Your task to perform on an android device: turn pop-ups on in chrome Image 0: 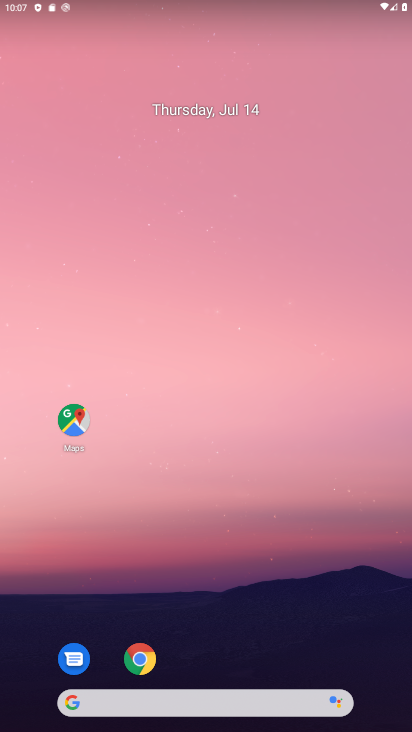
Step 0: drag from (207, 632) to (210, 187)
Your task to perform on an android device: turn pop-ups on in chrome Image 1: 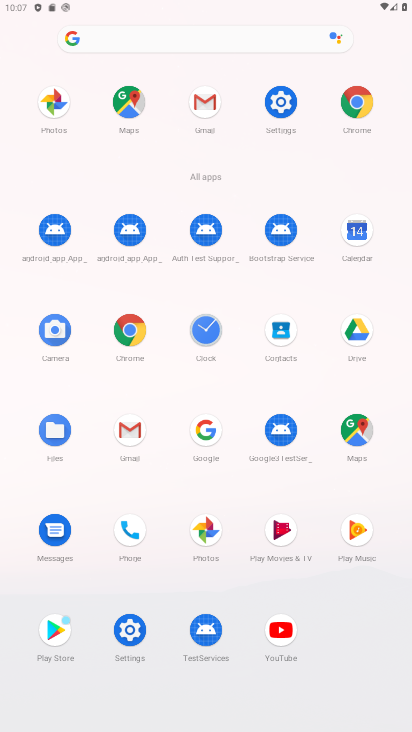
Step 1: click (128, 319)
Your task to perform on an android device: turn pop-ups on in chrome Image 2: 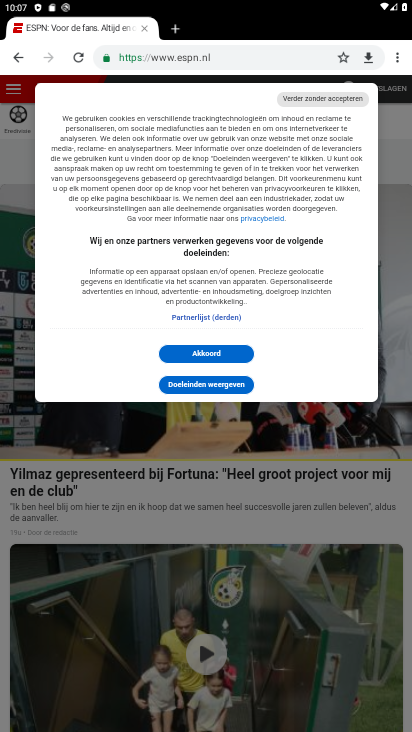
Step 2: click (394, 48)
Your task to perform on an android device: turn pop-ups on in chrome Image 3: 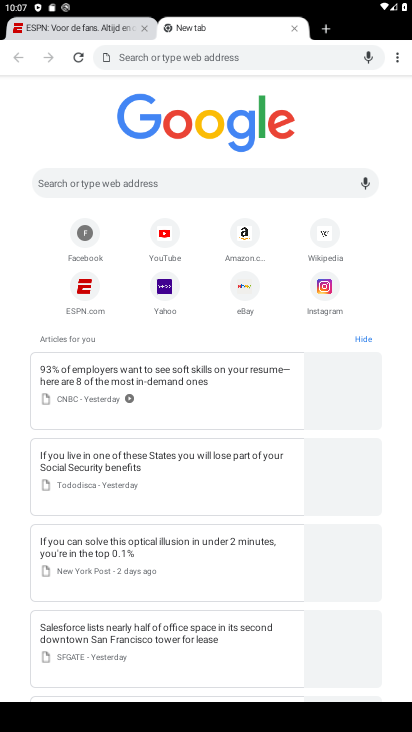
Step 3: click (401, 53)
Your task to perform on an android device: turn pop-ups on in chrome Image 4: 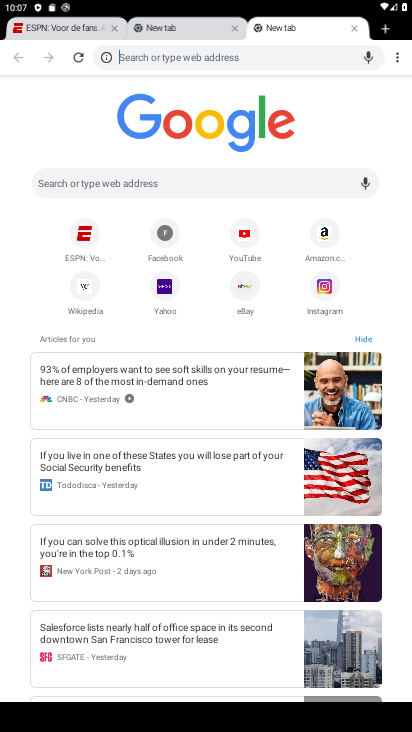
Step 4: click (395, 53)
Your task to perform on an android device: turn pop-ups on in chrome Image 5: 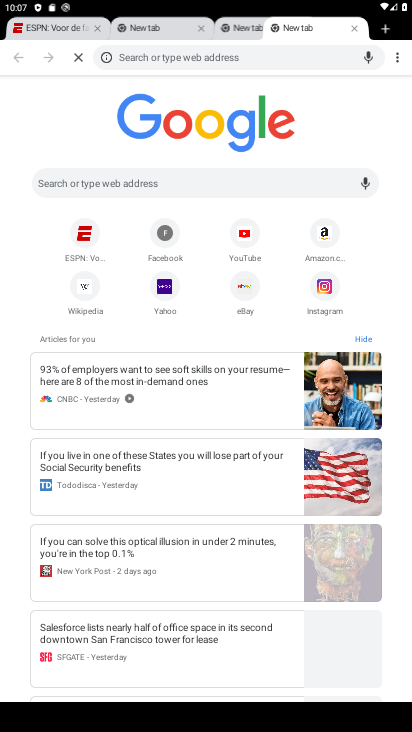
Step 5: click (395, 57)
Your task to perform on an android device: turn pop-ups on in chrome Image 6: 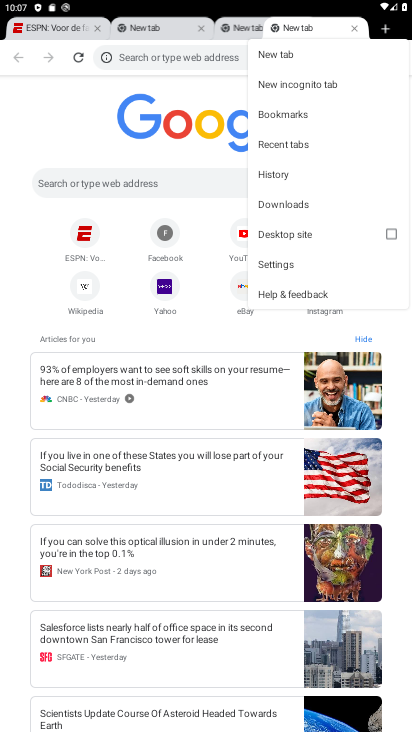
Step 6: click (291, 268)
Your task to perform on an android device: turn pop-ups on in chrome Image 7: 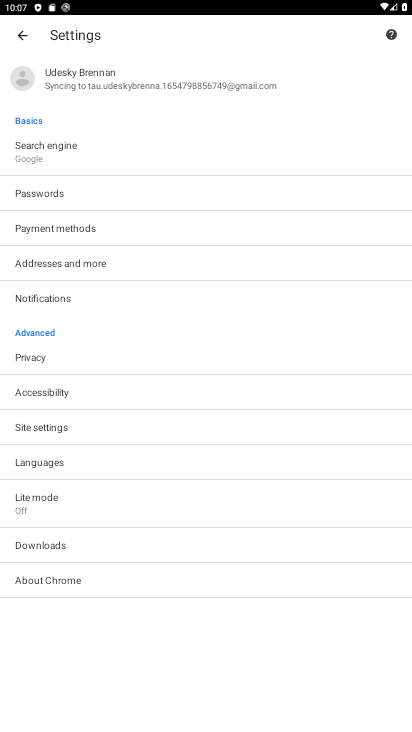
Step 7: click (70, 420)
Your task to perform on an android device: turn pop-ups on in chrome Image 8: 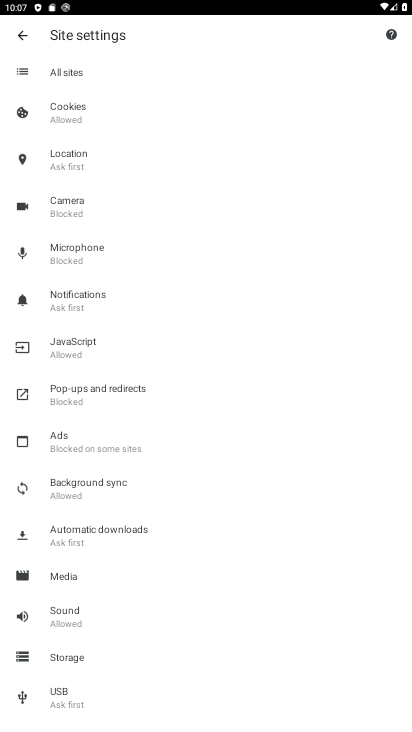
Step 8: click (100, 397)
Your task to perform on an android device: turn pop-ups on in chrome Image 9: 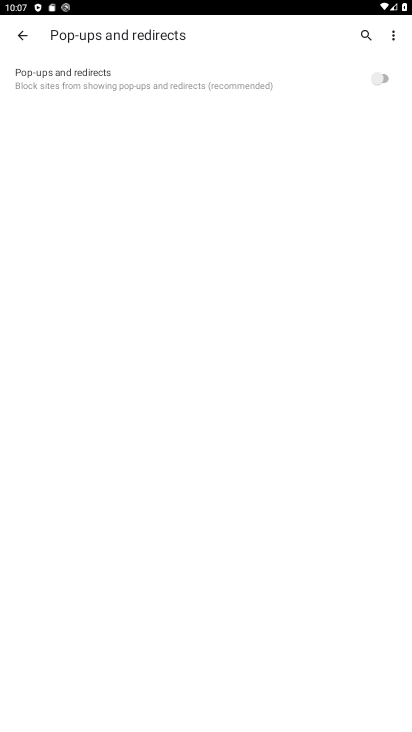
Step 9: click (371, 71)
Your task to perform on an android device: turn pop-ups on in chrome Image 10: 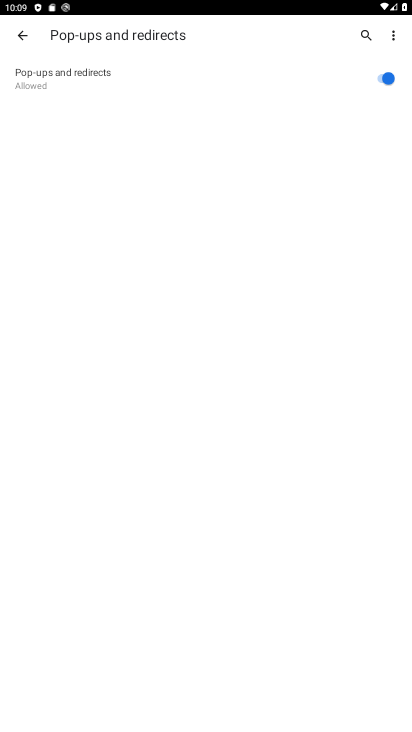
Step 10: task complete